Your task to perform on an android device: Open the calendar and show me this week's events? Image 0: 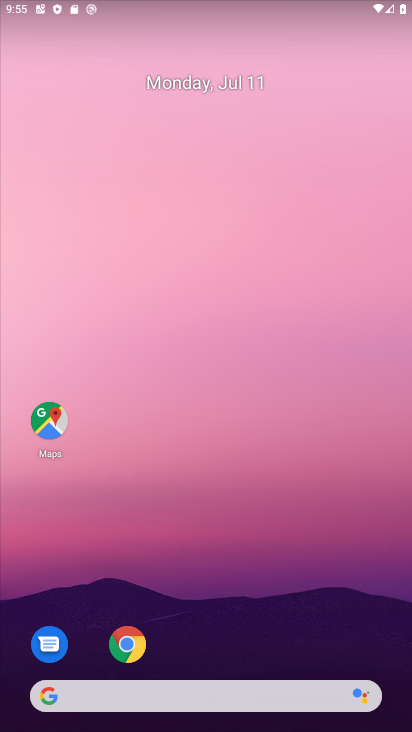
Step 0: press home button
Your task to perform on an android device: Open the calendar and show me this week's events? Image 1: 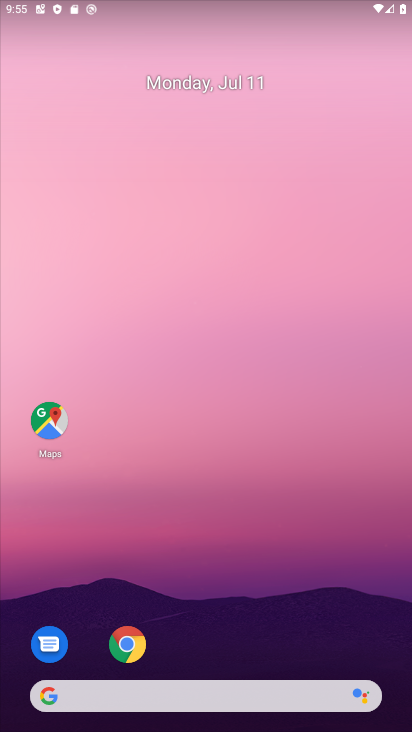
Step 1: drag from (226, 651) to (225, 1)
Your task to perform on an android device: Open the calendar and show me this week's events? Image 2: 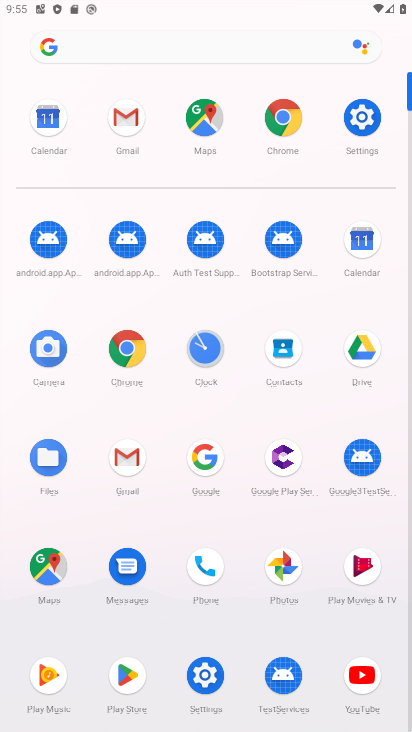
Step 2: click (360, 229)
Your task to perform on an android device: Open the calendar and show me this week's events? Image 3: 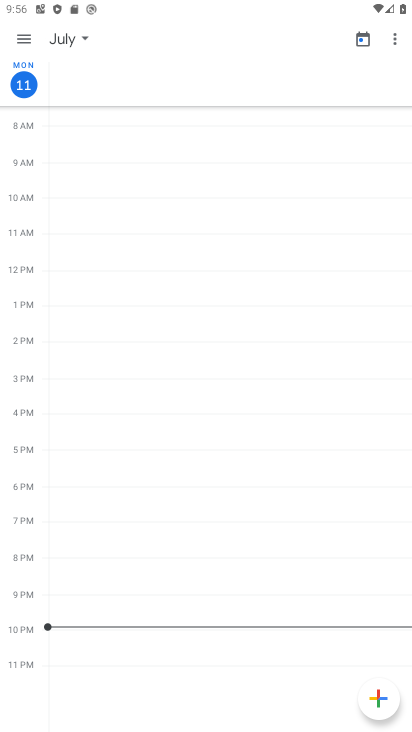
Step 3: click (22, 35)
Your task to perform on an android device: Open the calendar and show me this week's events? Image 4: 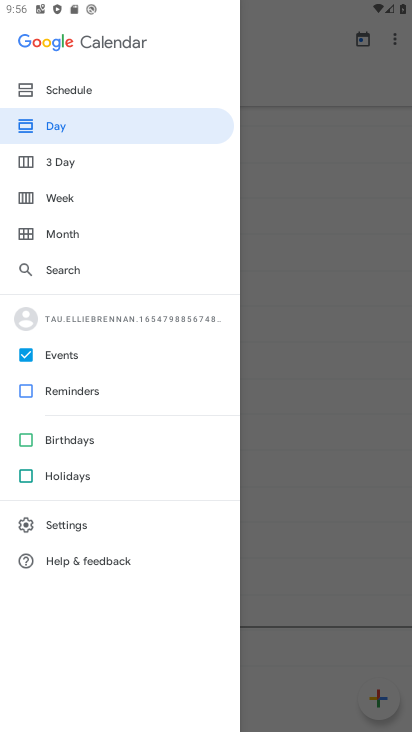
Step 4: click (34, 189)
Your task to perform on an android device: Open the calendar and show me this week's events? Image 5: 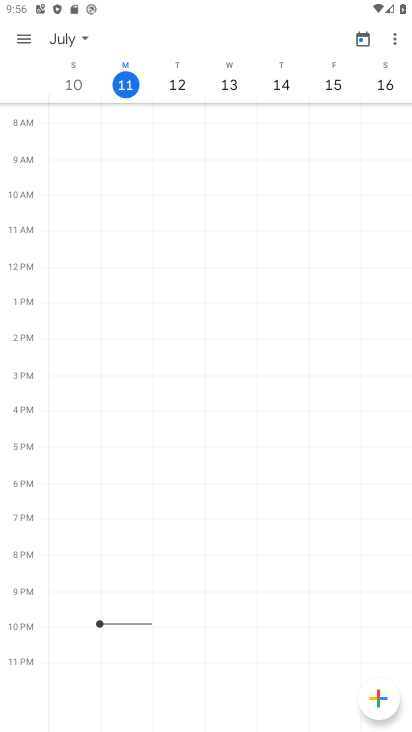
Step 5: task complete